Your task to perform on an android device: turn on javascript in the chrome app Image 0: 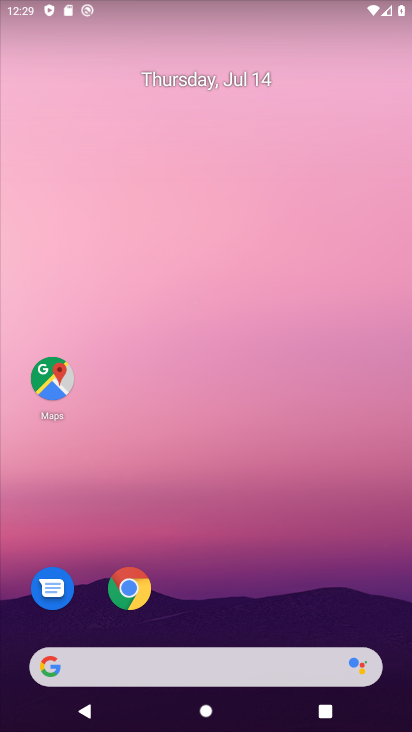
Step 0: click (129, 601)
Your task to perform on an android device: turn on javascript in the chrome app Image 1: 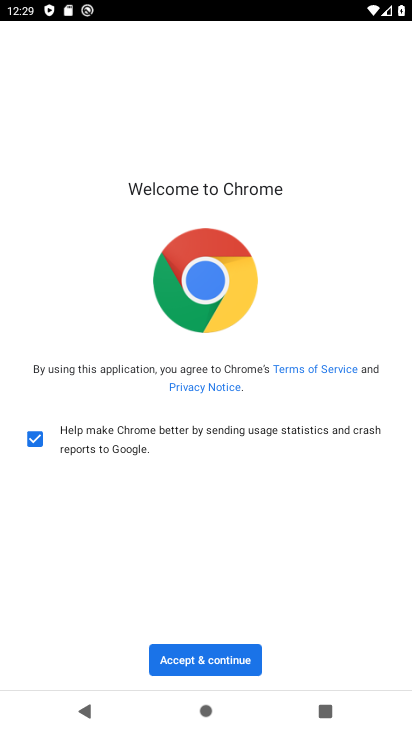
Step 1: click (234, 655)
Your task to perform on an android device: turn on javascript in the chrome app Image 2: 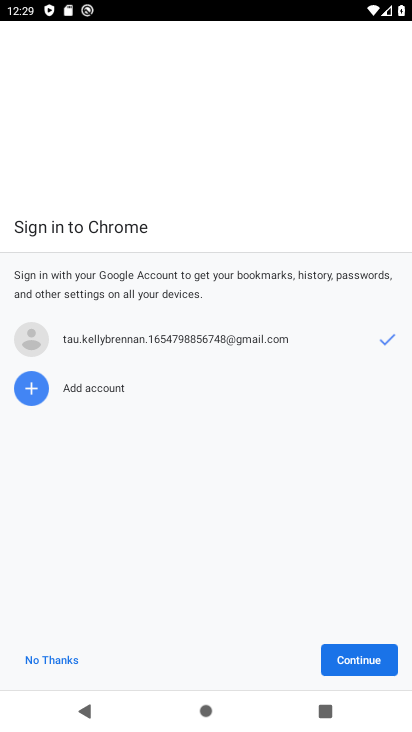
Step 2: click (371, 662)
Your task to perform on an android device: turn on javascript in the chrome app Image 3: 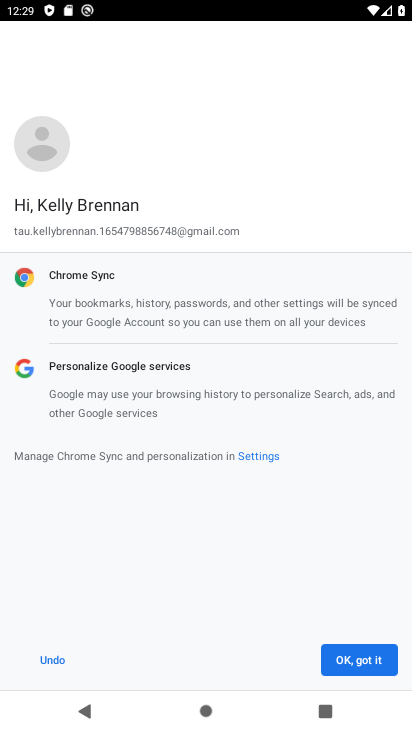
Step 3: click (388, 655)
Your task to perform on an android device: turn on javascript in the chrome app Image 4: 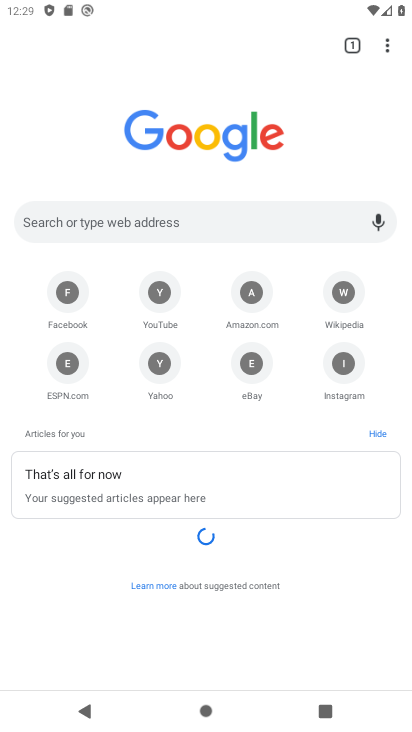
Step 4: drag from (385, 38) to (270, 370)
Your task to perform on an android device: turn on javascript in the chrome app Image 5: 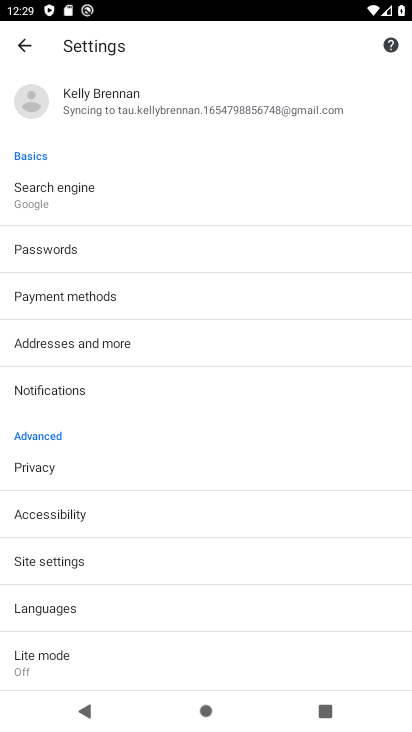
Step 5: click (108, 568)
Your task to perform on an android device: turn on javascript in the chrome app Image 6: 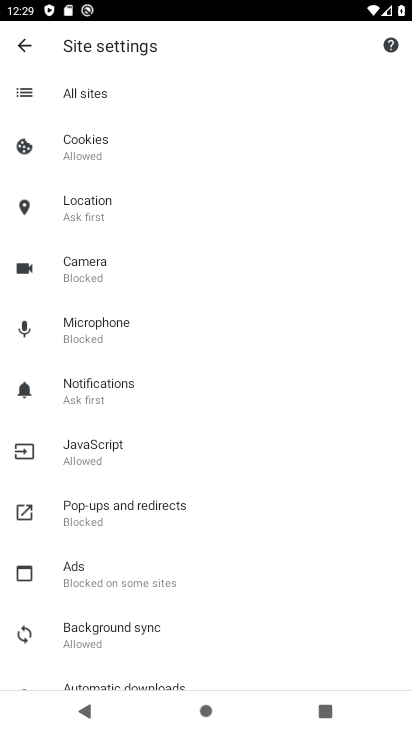
Step 6: click (122, 466)
Your task to perform on an android device: turn on javascript in the chrome app Image 7: 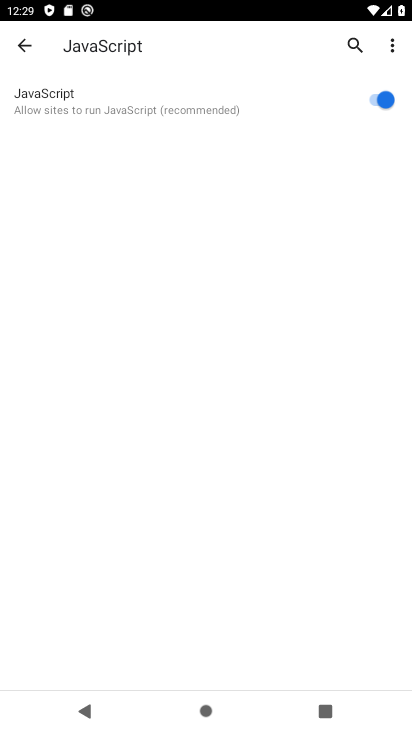
Step 7: task complete